Your task to perform on an android device: turn on bluetooth scan Image 0: 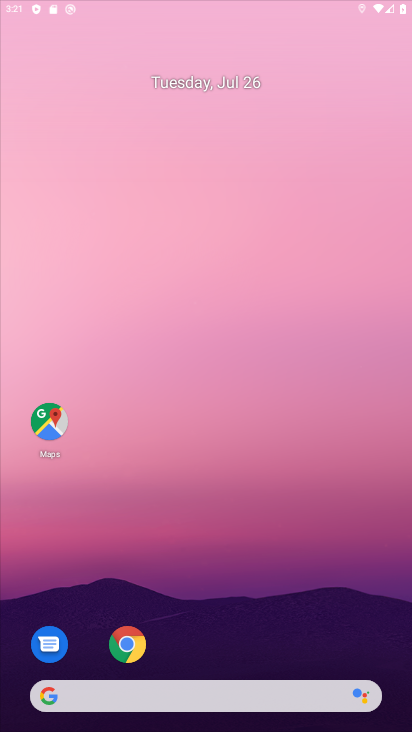
Step 0: click (233, 121)
Your task to perform on an android device: turn on bluetooth scan Image 1: 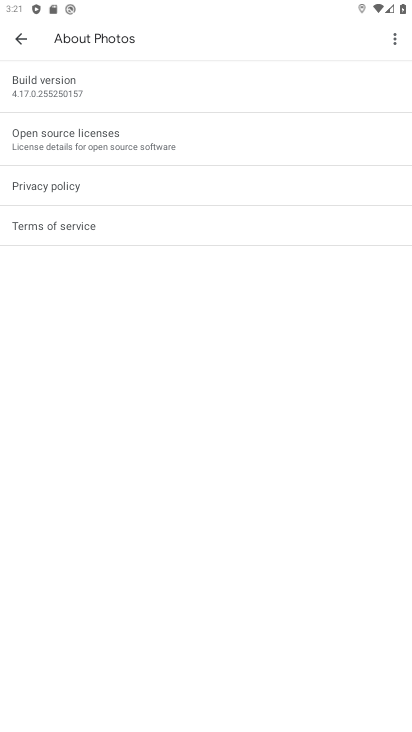
Step 1: press home button
Your task to perform on an android device: turn on bluetooth scan Image 2: 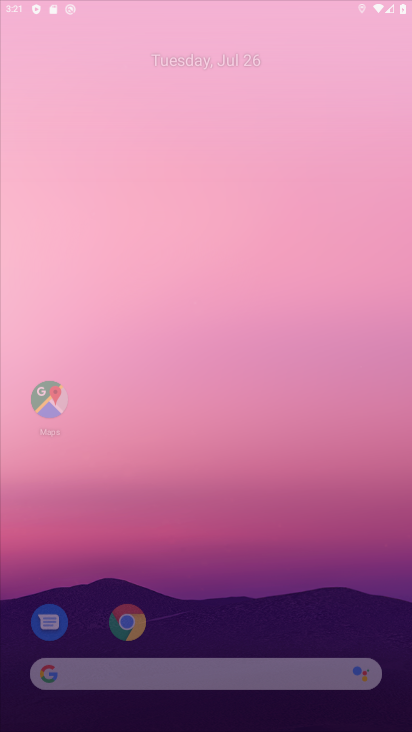
Step 2: drag from (181, 551) to (182, 7)
Your task to perform on an android device: turn on bluetooth scan Image 3: 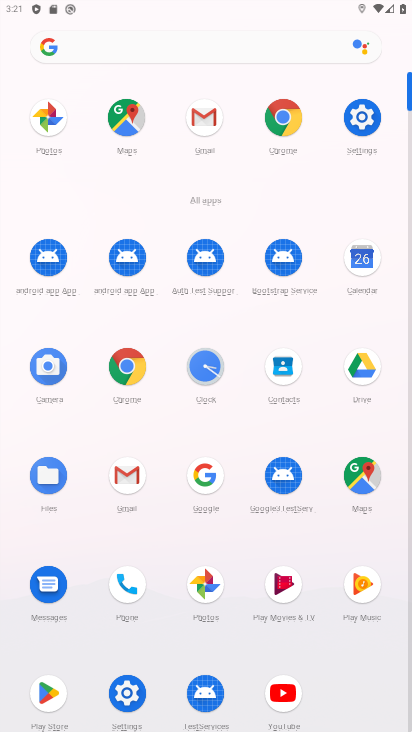
Step 3: click (356, 108)
Your task to perform on an android device: turn on bluetooth scan Image 4: 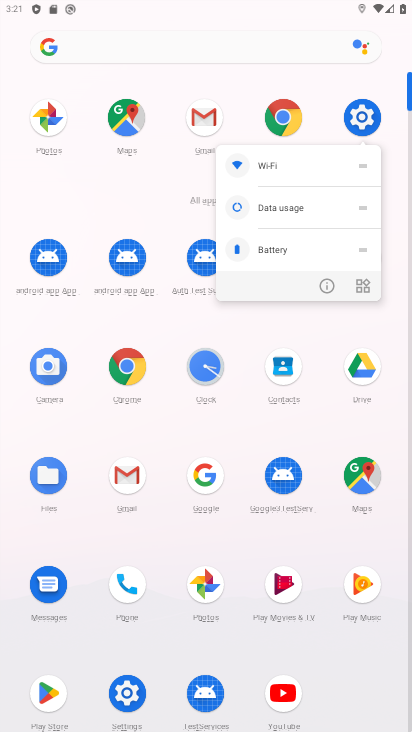
Step 4: click (330, 285)
Your task to perform on an android device: turn on bluetooth scan Image 5: 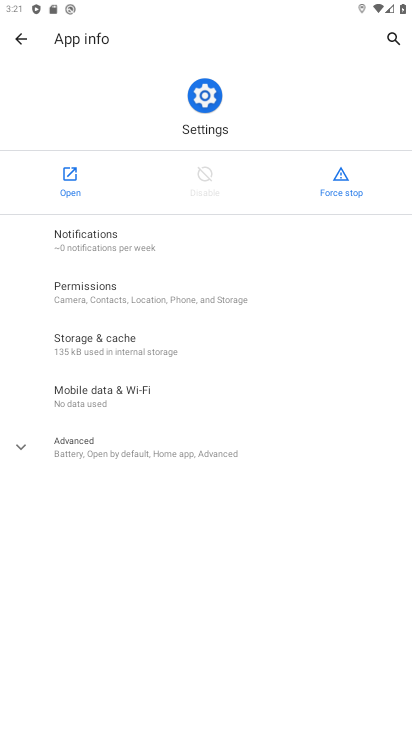
Step 5: click (57, 166)
Your task to perform on an android device: turn on bluetooth scan Image 6: 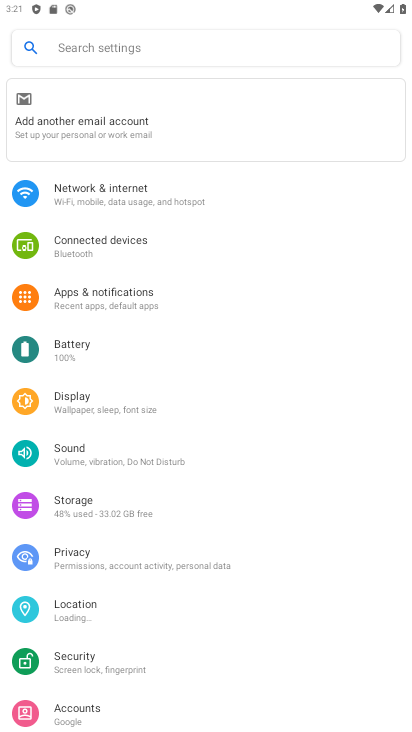
Step 6: click (123, 305)
Your task to perform on an android device: turn on bluetooth scan Image 7: 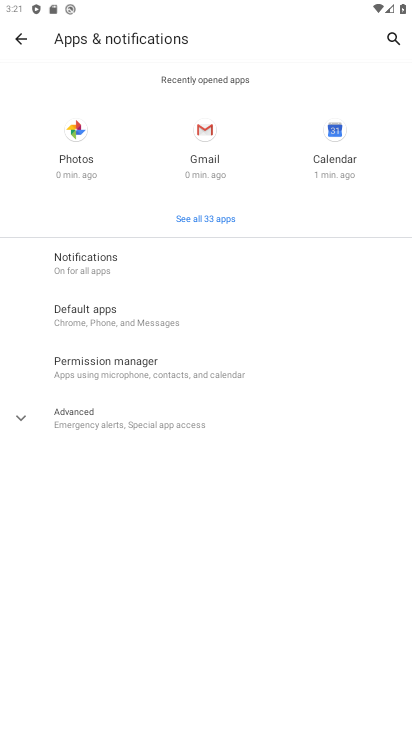
Step 7: click (24, 39)
Your task to perform on an android device: turn on bluetooth scan Image 8: 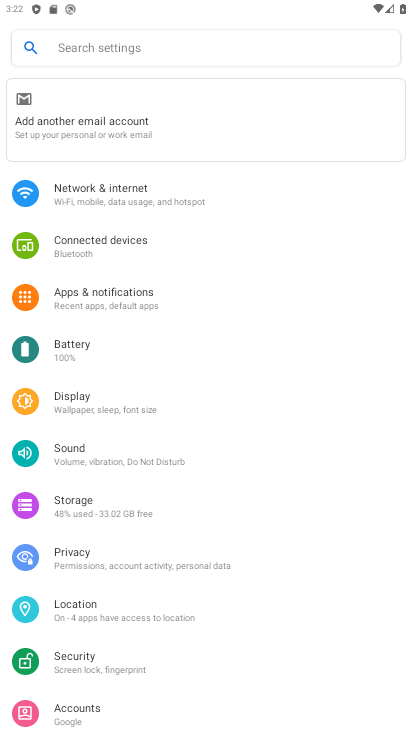
Step 8: click (87, 533)
Your task to perform on an android device: turn on bluetooth scan Image 9: 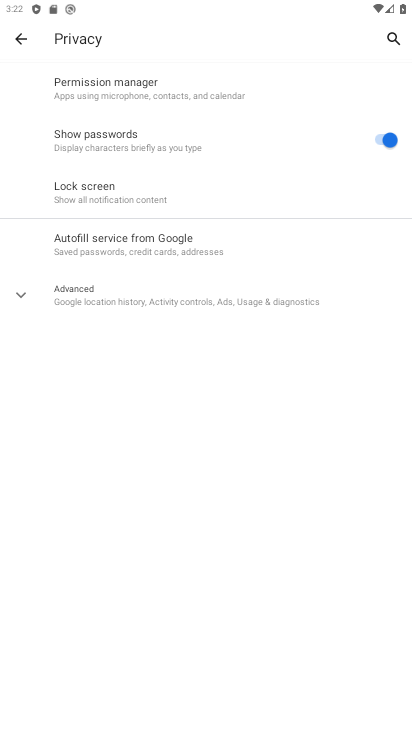
Step 9: click (23, 45)
Your task to perform on an android device: turn on bluetooth scan Image 10: 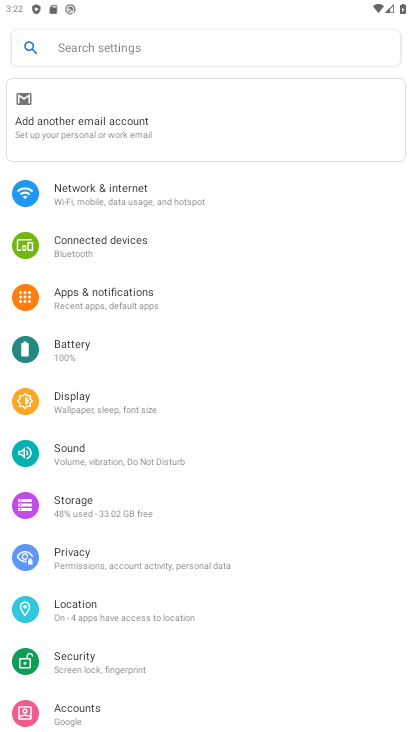
Step 10: click (82, 620)
Your task to perform on an android device: turn on bluetooth scan Image 11: 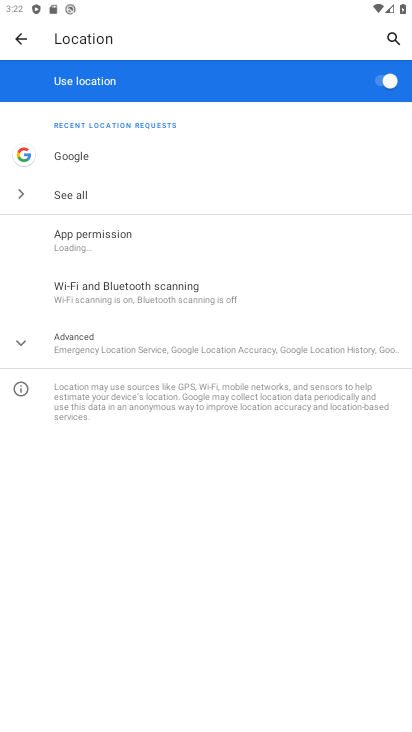
Step 11: click (120, 299)
Your task to perform on an android device: turn on bluetooth scan Image 12: 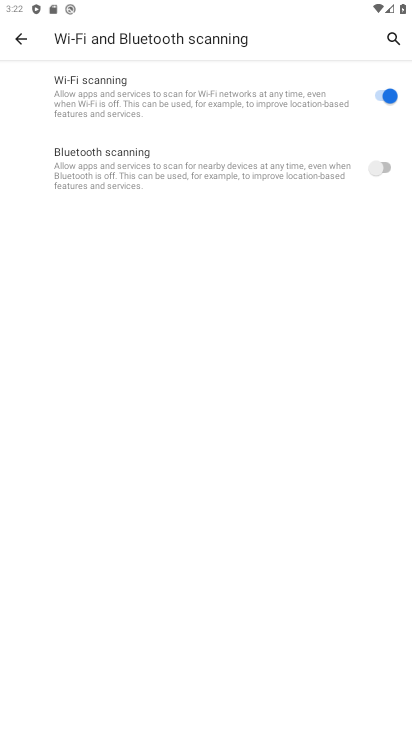
Step 12: click (191, 173)
Your task to perform on an android device: turn on bluetooth scan Image 13: 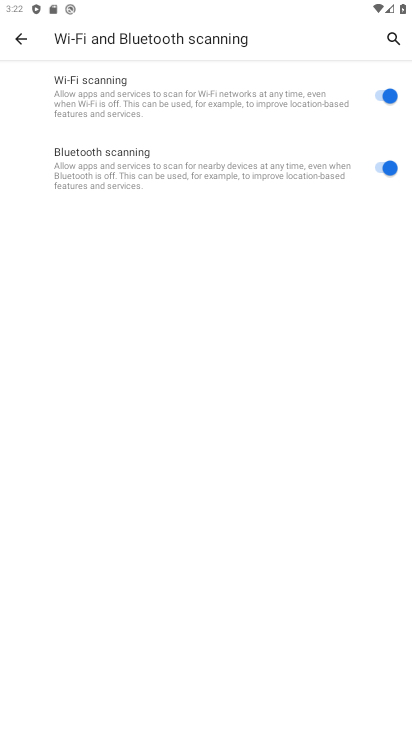
Step 13: task complete